Your task to perform on an android device: Search for Mexican restaurants on Maps Image 0: 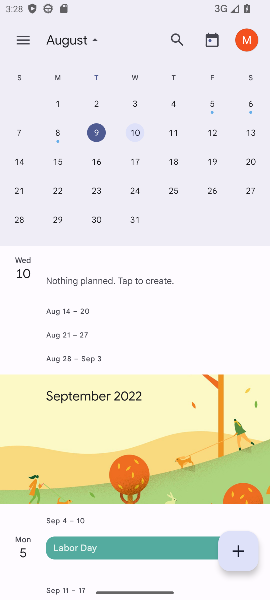
Step 0: press home button
Your task to perform on an android device: Search for Mexican restaurants on Maps Image 1: 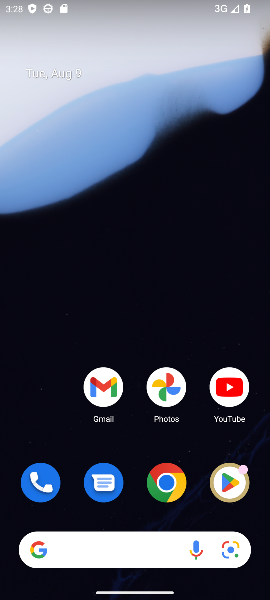
Step 1: drag from (139, 446) to (139, 161)
Your task to perform on an android device: Search for Mexican restaurants on Maps Image 2: 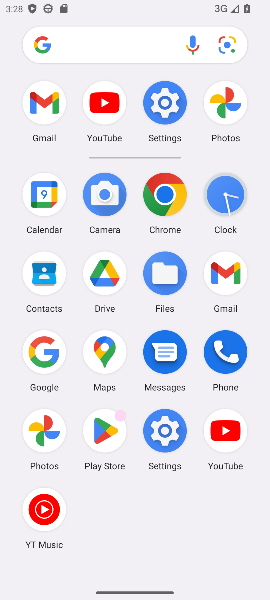
Step 2: click (101, 362)
Your task to perform on an android device: Search for Mexican restaurants on Maps Image 3: 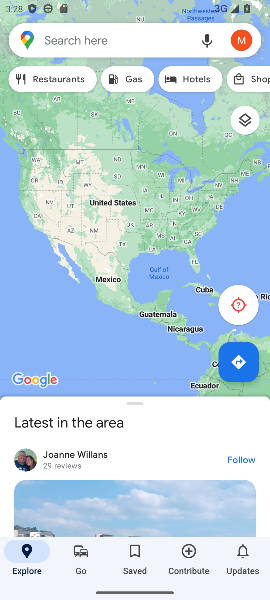
Step 3: click (108, 32)
Your task to perform on an android device: Search for Mexican restaurants on Maps Image 4: 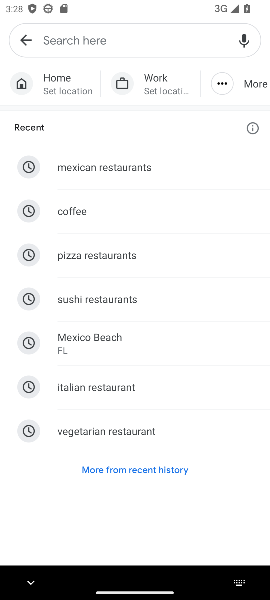
Step 4: click (113, 171)
Your task to perform on an android device: Search for Mexican restaurants on Maps Image 5: 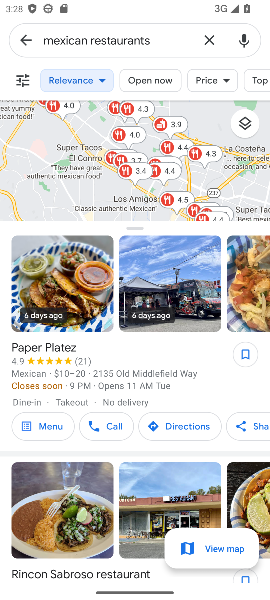
Step 5: task complete